Your task to perform on an android device: turn on data saver in the chrome app Image 0: 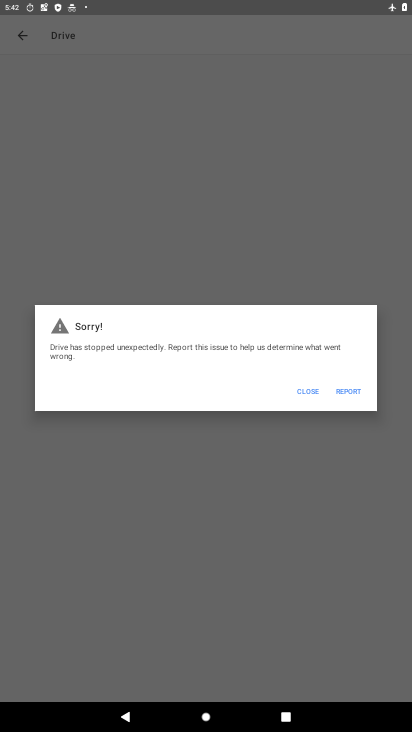
Step 0: press home button
Your task to perform on an android device: turn on data saver in the chrome app Image 1: 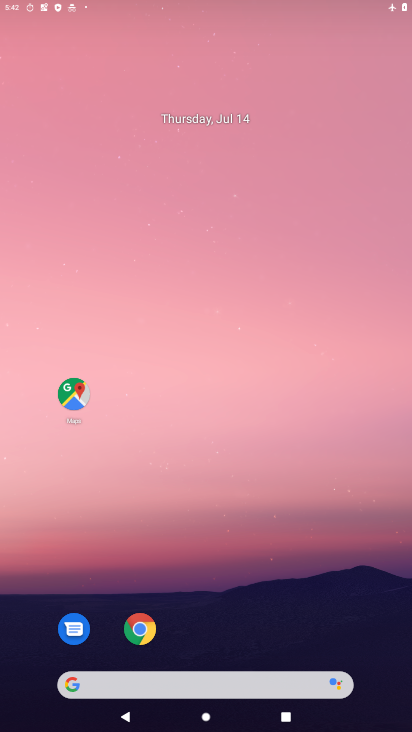
Step 1: drag from (214, 606) to (232, 68)
Your task to perform on an android device: turn on data saver in the chrome app Image 2: 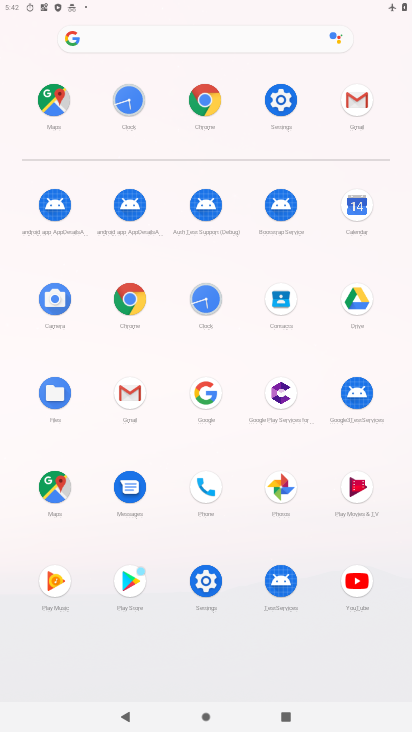
Step 2: click (130, 298)
Your task to perform on an android device: turn on data saver in the chrome app Image 3: 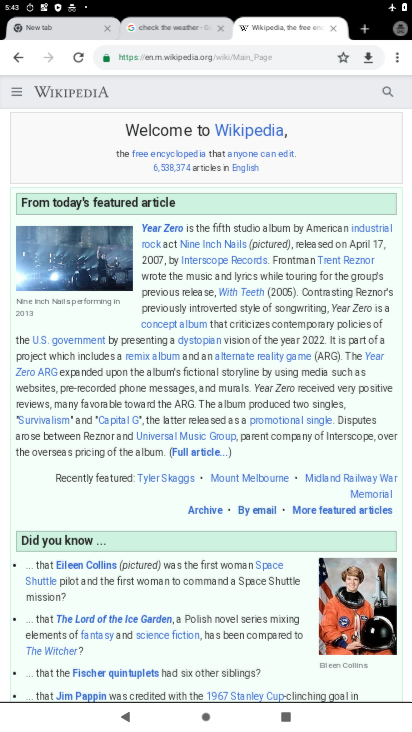
Step 3: click (390, 50)
Your task to perform on an android device: turn on data saver in the chrome app Image 4: 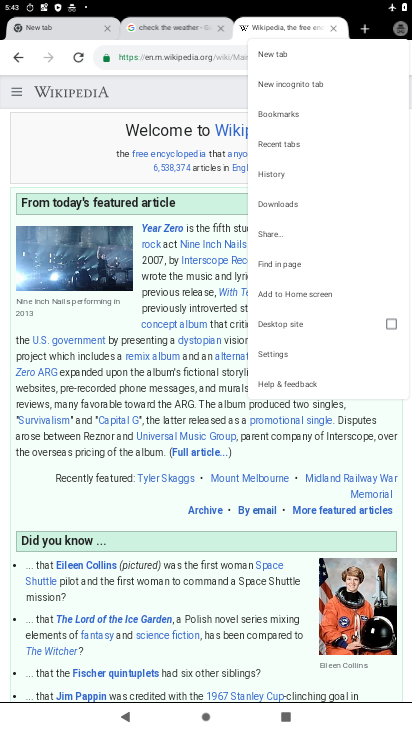
Step 4: click (287, 342)
Your task to perform on an android device: turn on data saver in the chrome app Image 5: 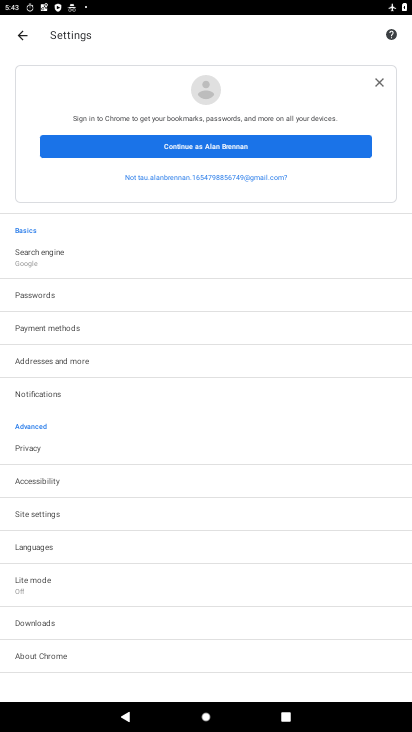
Step 5: click (48, 575)
Your task to perform on an android device: turn on data saver in the chrome app Image 6: 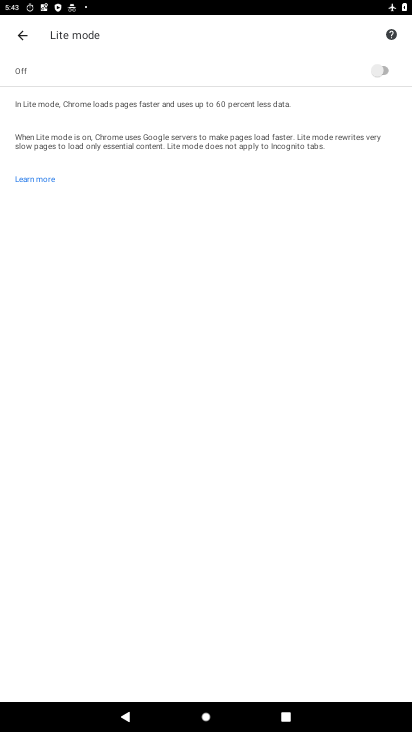
Step 6: click (388, 72)
Your task to perform on an android device: turn on data saver in the chrome app Image 7: 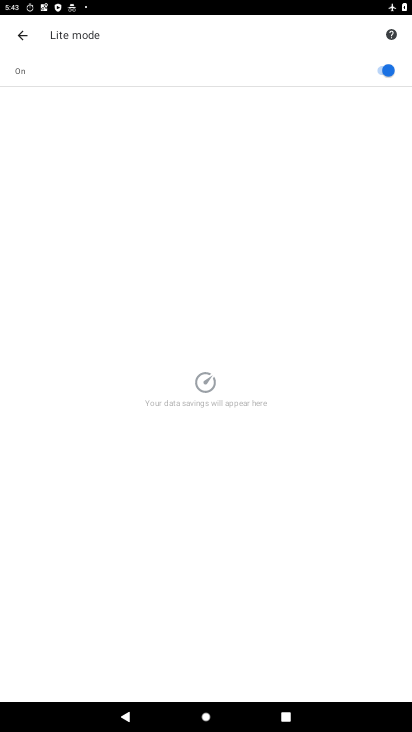
Step 7: task complete